Your task to perform on an android device: Go to settings Image 0: 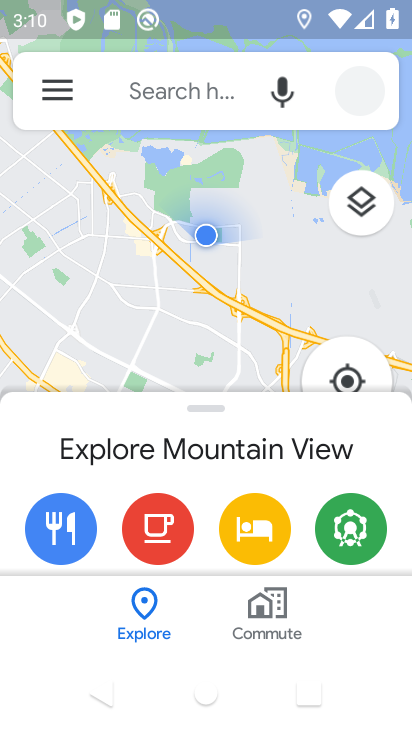
Step 0: press home button
Your task to perform on an android device: Go to settings Image 1: 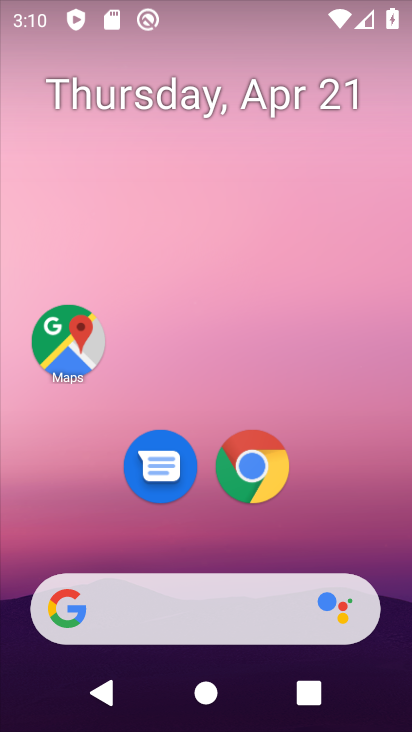
Step 1: drag from (210, 551) to (198, 157)
Your task to perform on an android device: Go to settings Image 2: 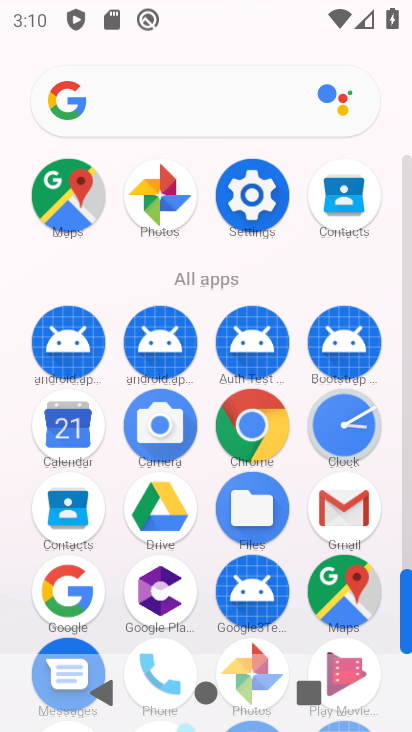
Step 2: click (264, 191)
Your task to perform on an android device: Go to settings Image 3: 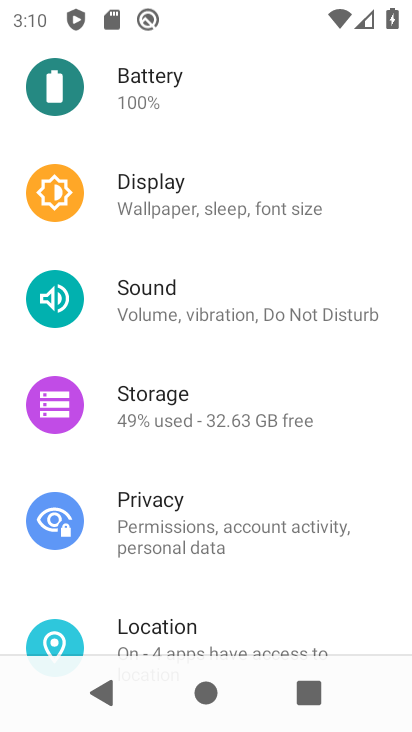
Step 3: task complete